Your task to perform on an android device: Do I have any events today? Image 0: 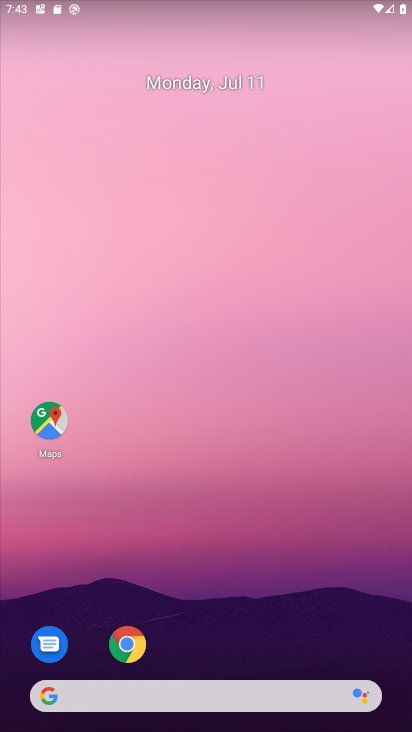
Step 0: drag from (265, 611) to (302, 228)
Your task to perform on an android device: Do I have any events today? Image 1: 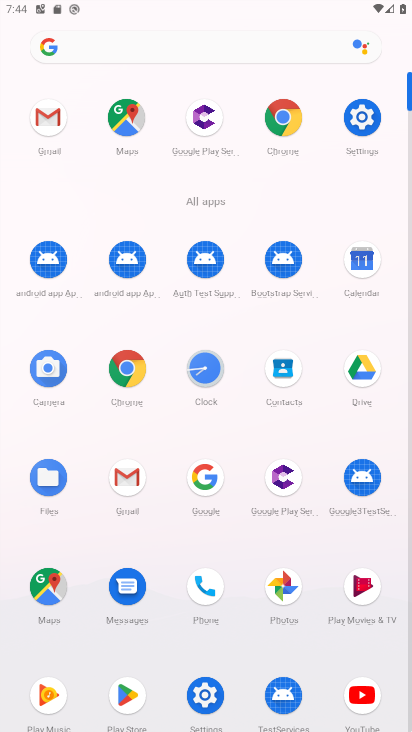
Step 1: click (370, 254)
Your task to perform on an android device: Do I have any events today? Image 2: 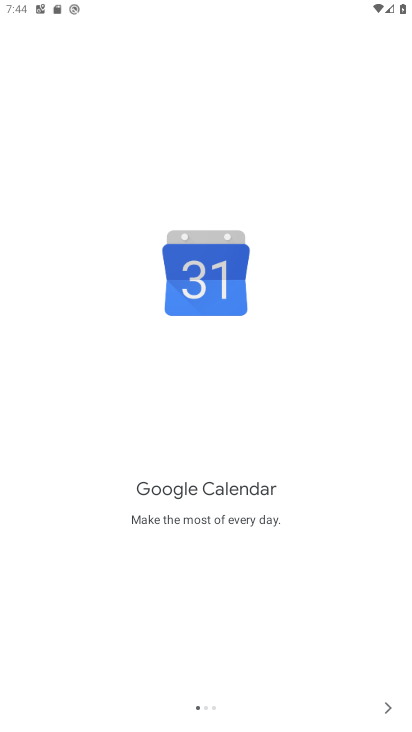
Step 2: click (386, 703)
Your task to perform on an android device: Do I have any events today? Image 3: 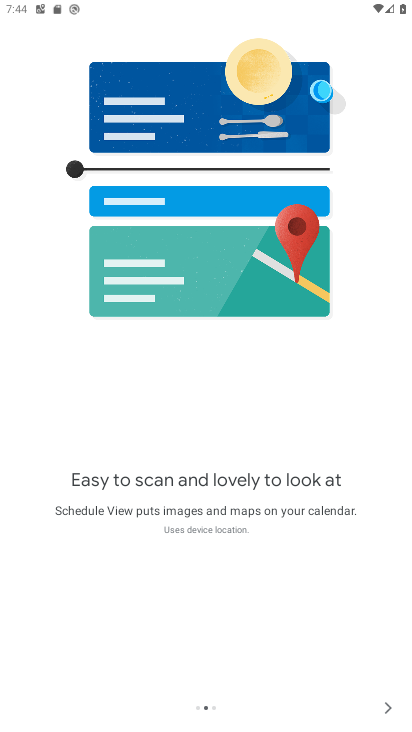
Step 3: click (381, 694)
Your task to perform on an android device: Do I have any events today? Image 4: 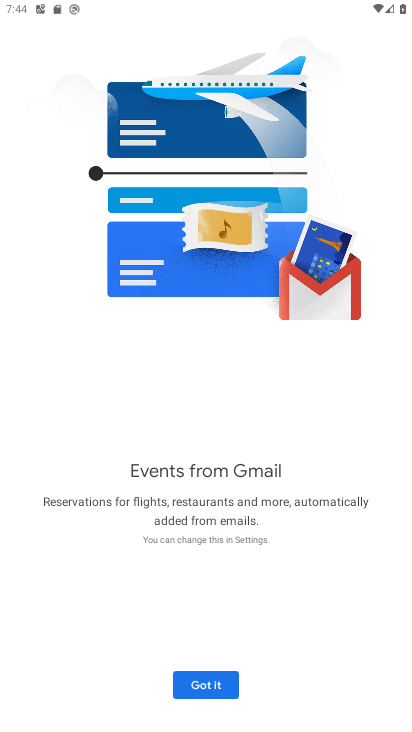
Step 4: click (217, 679)
Your task to perform on an android device: Do I have any events today? Image 5: 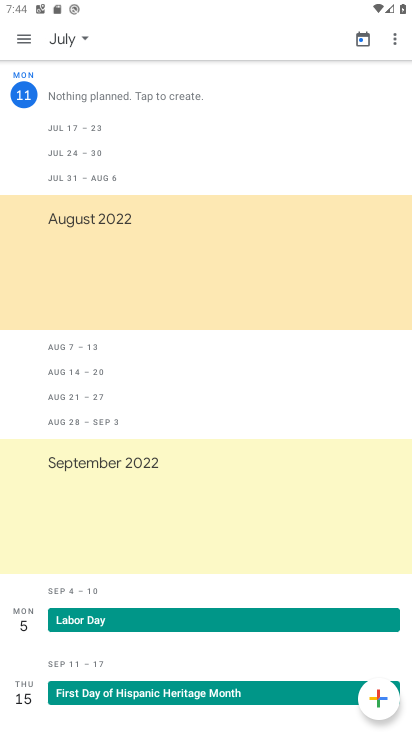
Step 5: click (31, 44)
Your task to perform on an android device: Do I have any events today? Image 6: 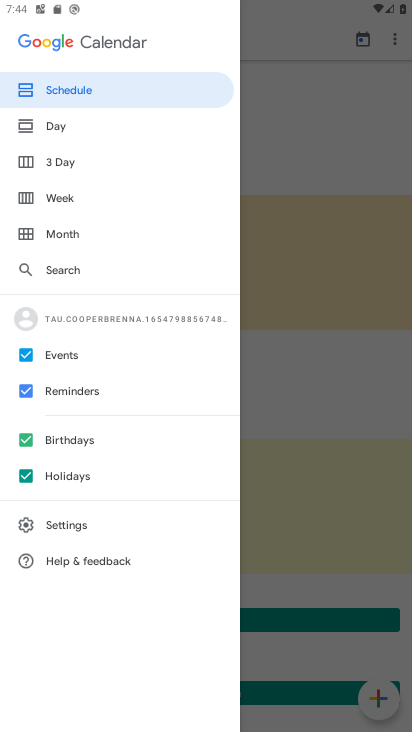
Step 6: click (66, 123)
Your task to perform on an android device: Do I have any events today? Image 7: 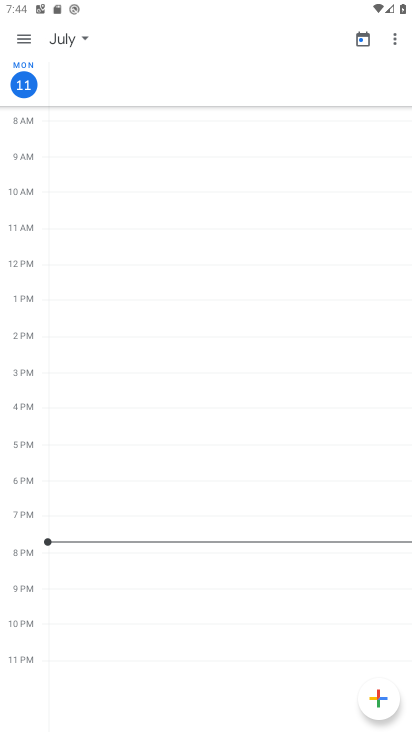
Step 7: drag from (145, 530) to (169, 41)
Your task to perform on an android device: Do I have any events today? Image 8: 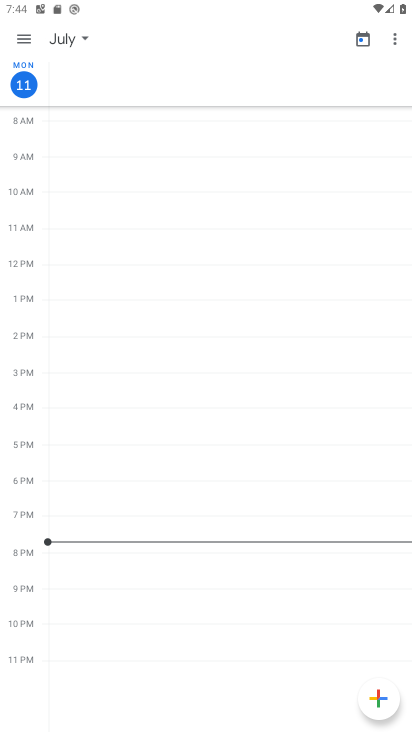
Step 8: click (18, 33)
Your task to perform on an android device: Do I have any events today? Image 9: 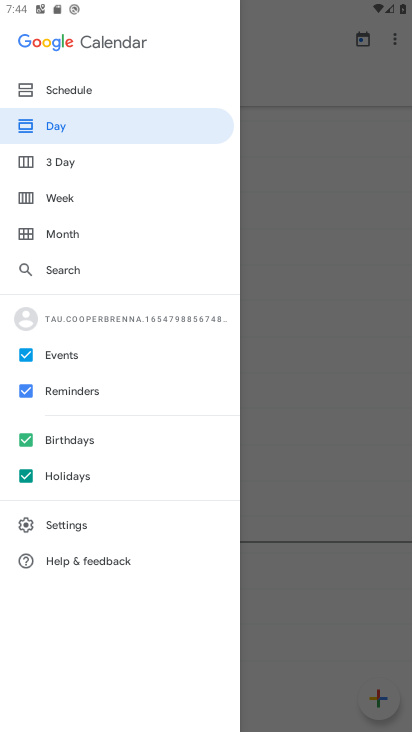
Step 9: click (66, 240)
Your task to perform on an android device: Do I have any events today? Image 10: 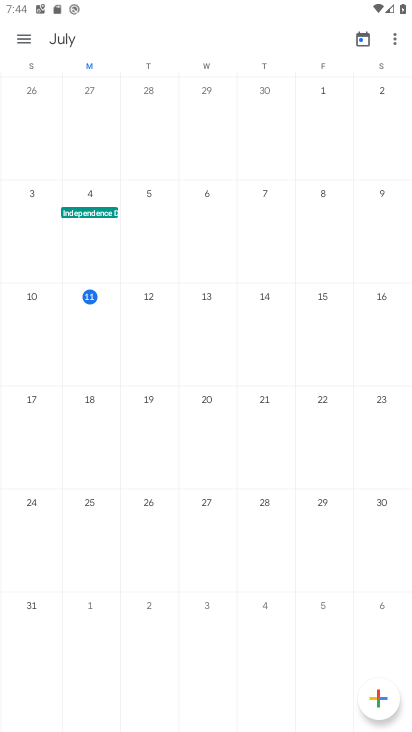
Step 10: click (138, 306)
Your task to perform on an android device: Do I have any events today? Image 11: 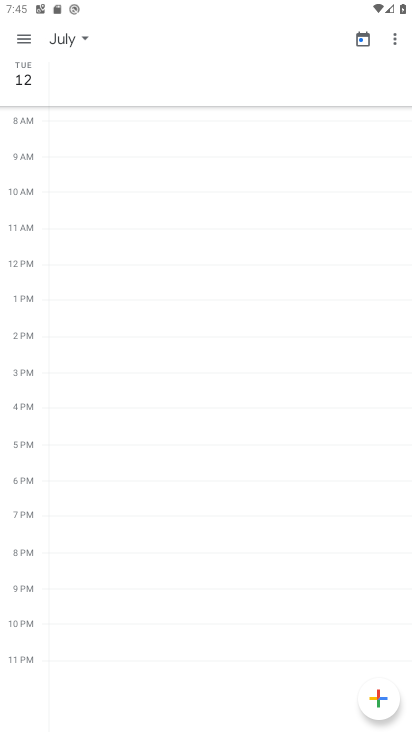
Step 11: task complete